Your task to perform on an android device: all mails in gmail Image 0: 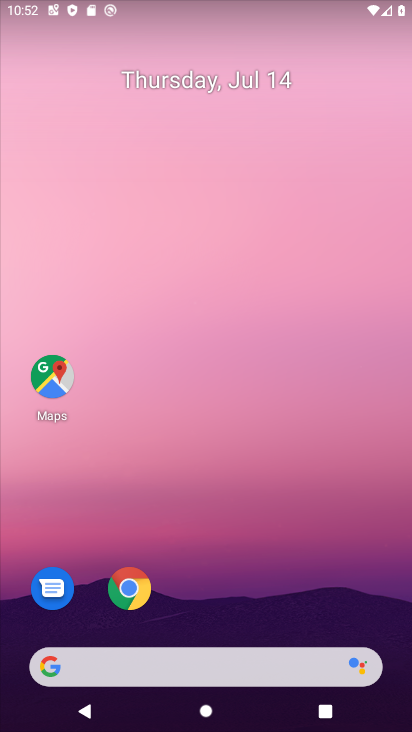
Step 0: drag from (214, 673) to (315, 130)
Your task to perform on an android device: all mails in gmail Image 1: 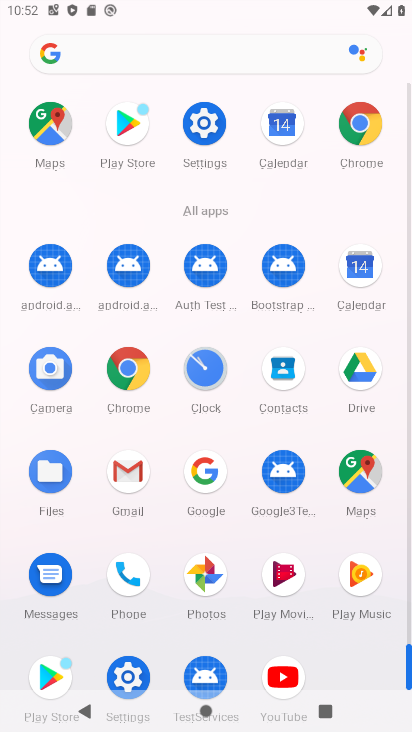
Step 1: click (125, 470)
Your task to perform on an android device: all mails in gmail Image 2: 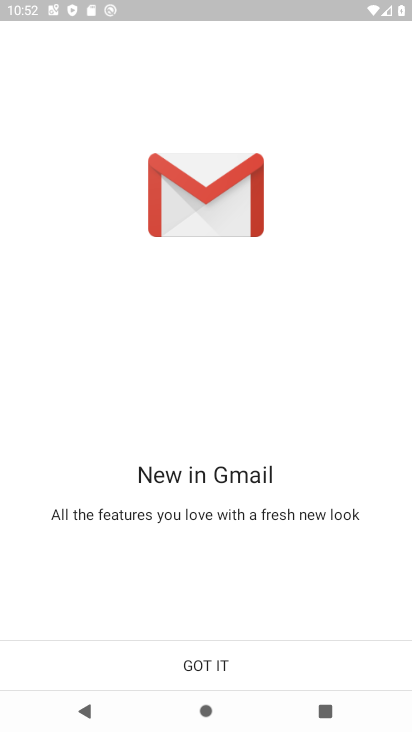
Step 2: click (198, 663)
Your task to perform on an android device: all mails in gmail Image 3: 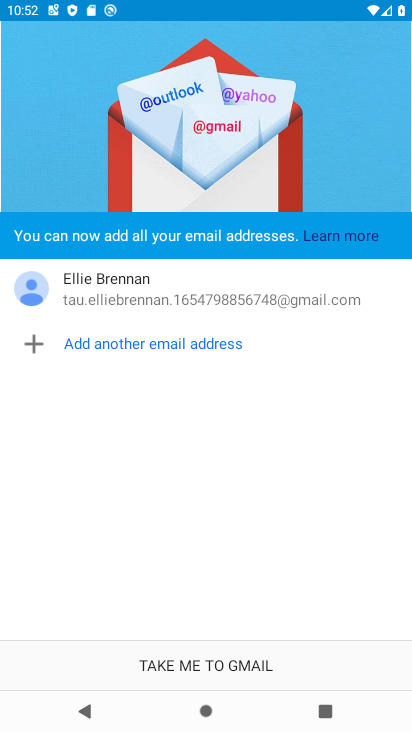
Step 3: click (198, 663)
Your task to perform on an android device: all mails in gmail Image 4: 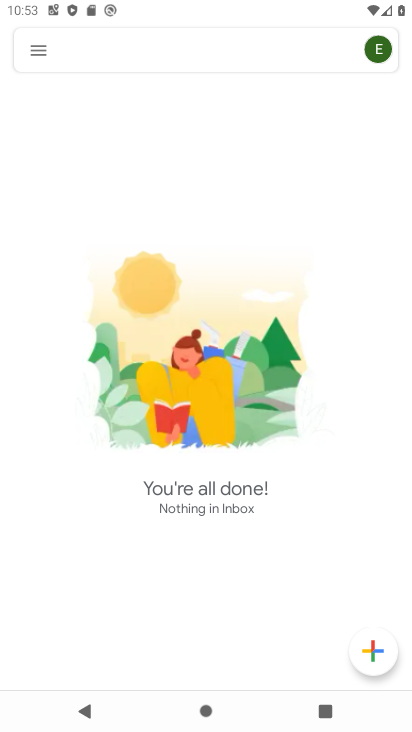
Step 4: click (37, 52)
Your task to perform on an android device: all mails in gmail Image 5: 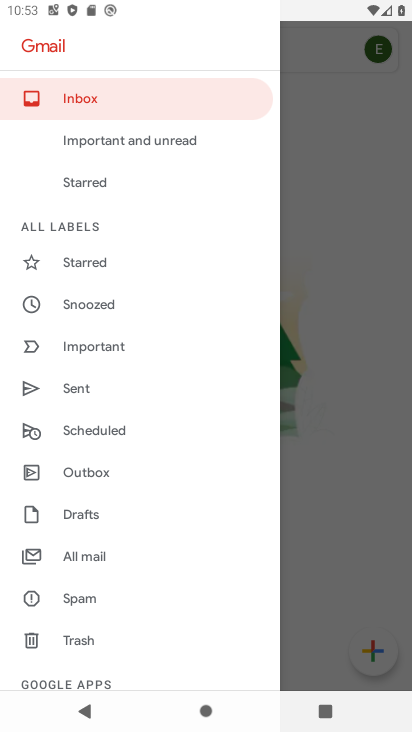
Step 5: click (86, 555)
Your task to perform on an android device: all mails in gmail Image 6: 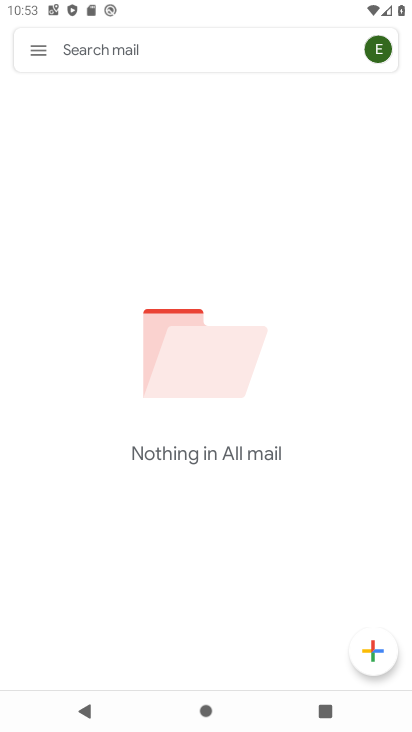
Step 6: click (33, 52)
Your task to perform on an android device: all mails in gmail Image 7: 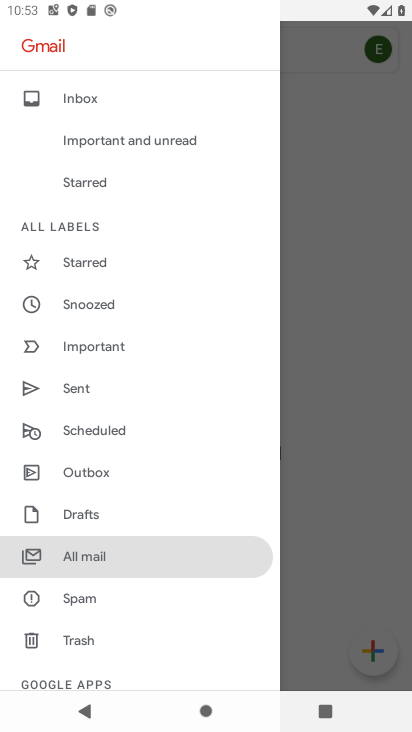
Step 7: click (73, 134)
Your task to perform on an android device: all mails in gmail Image 8: 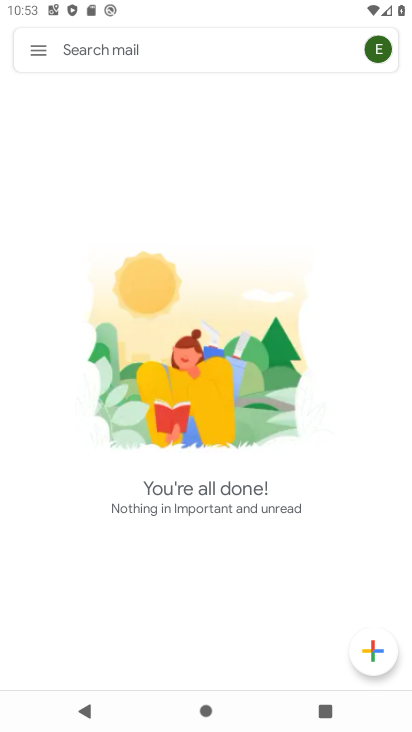
Step 8: click (39, 53)
Your task to perform on an android device: all mails in gmail Image 9: 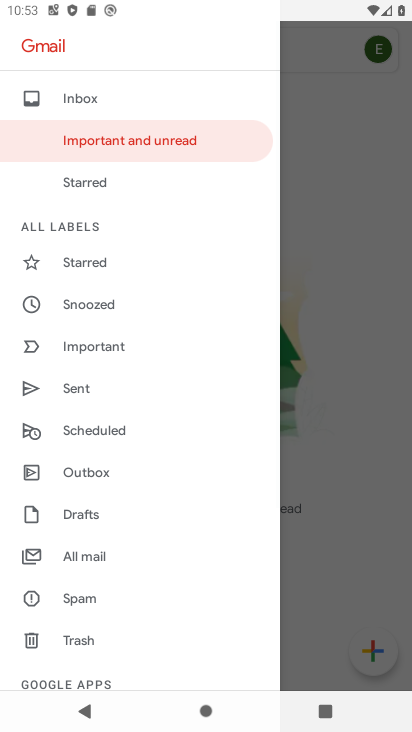
Step 9: click (81, 173)
Your task to perform on an android device: all mails in gmail Image 10: 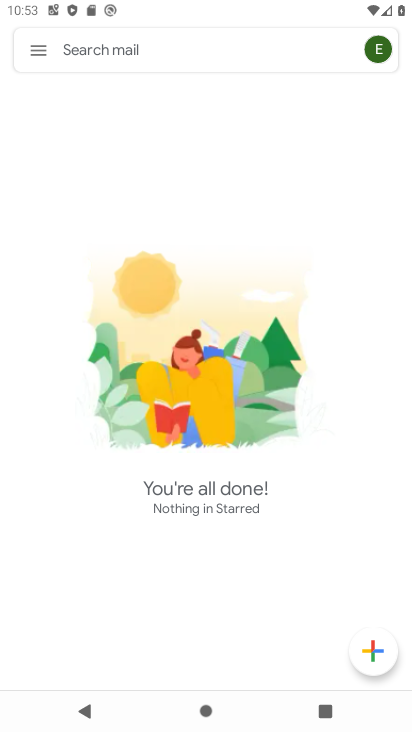
Step 10: click (39, 48)
Your task to perform on an android device: all mails in gmail Image 11: 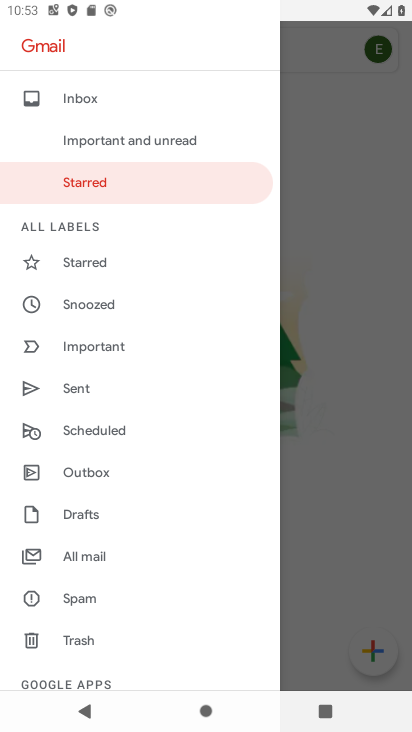
Step 11: click (91, 264)
Your task to perform on an android device: all mails in gmail Image 12: 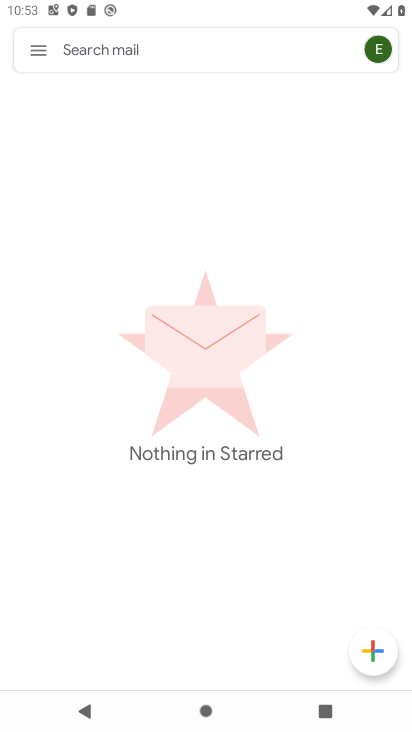
Step 12: click (35, 44)
Your task to perform on an android device: all mails in gmail Image 13: 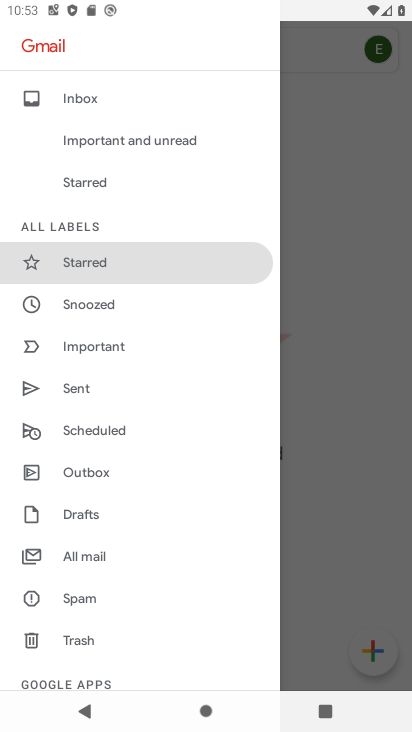
Step 13: click (103, 302)
Your task to perform on an android device: all mails in gmail Image 14: 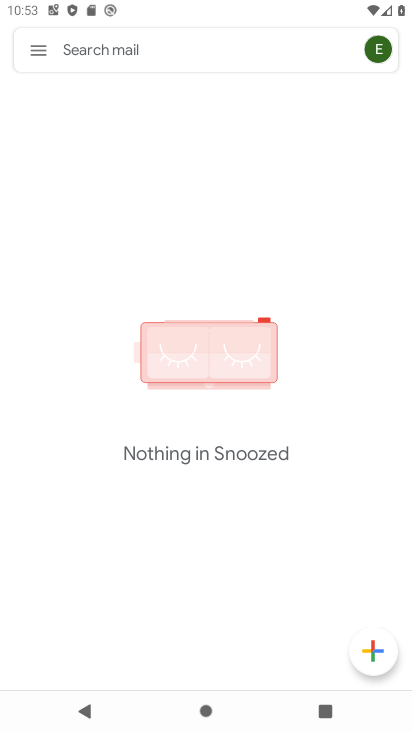
Step 14: click (42, 50)
Your task to perform on an android device: all mails in gmail Image 15: 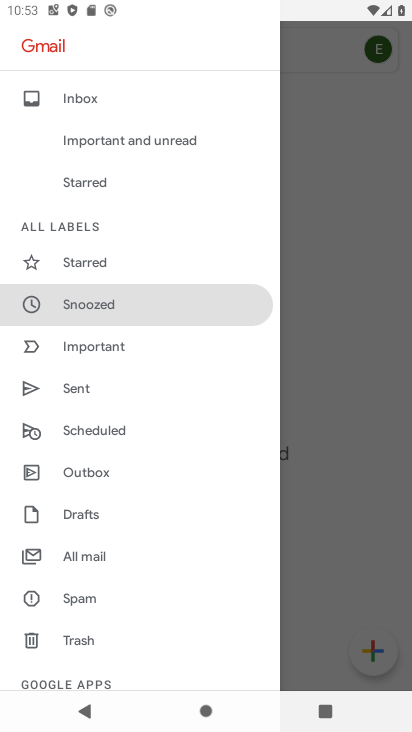
Step 15: click (117, 346)
Your task to perform on an android device: all mails in gmail Image 16: 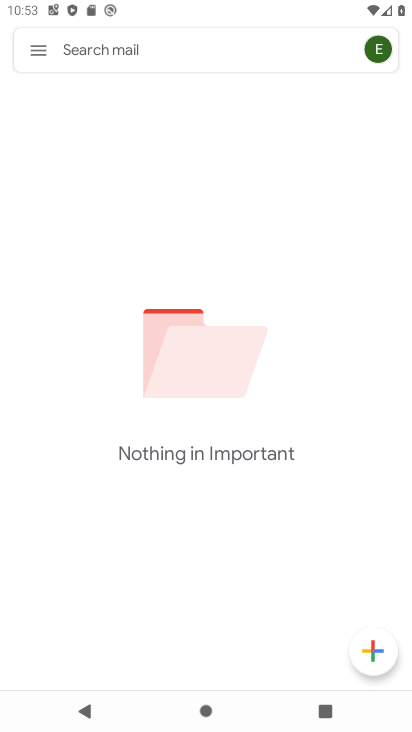
Step 16: click (34, 53)
Your task to perform on an android device: all mails in gmail Image 17: 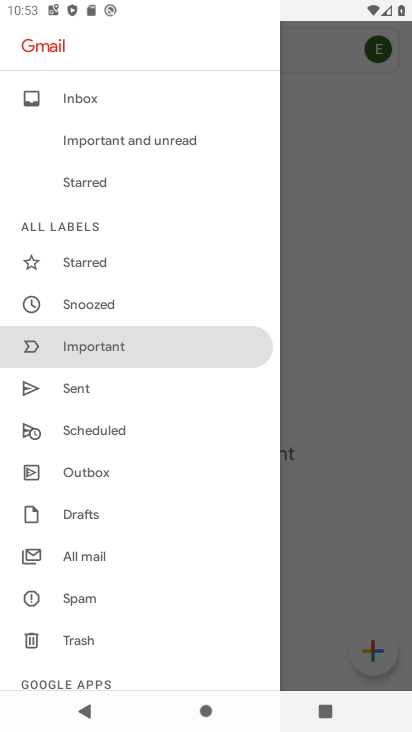
Step 17: click (96, 384)
Your task to perform on an android device: all mails in gmail Image 18: 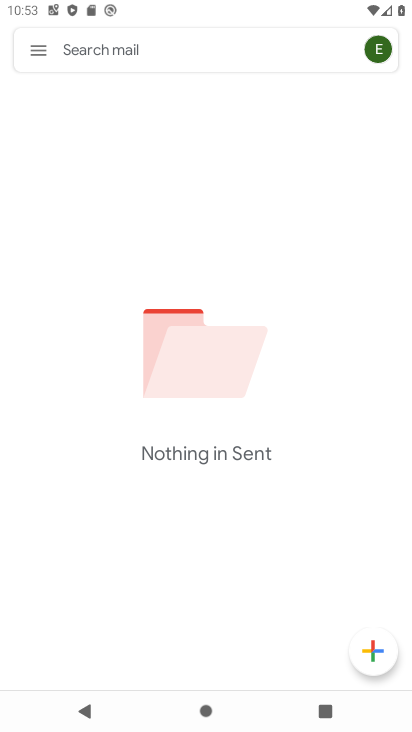
Step 18: click (32, 49)
Your task to perform on an android device: all mails in gmail Image 19: 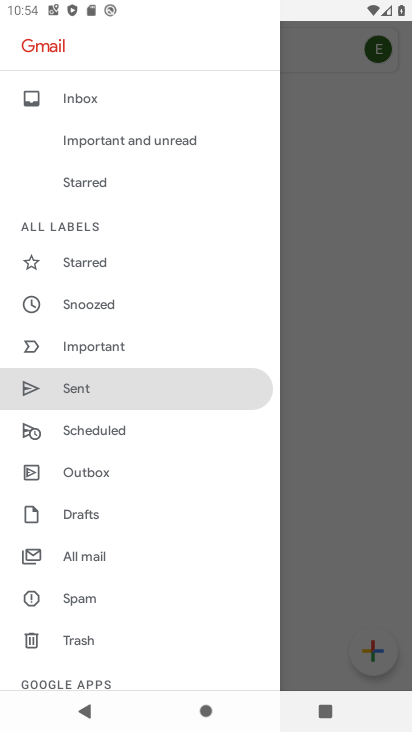
Step 19: click (99, 426)
Your task to perform on an android device: all mails in gmail Image 20: 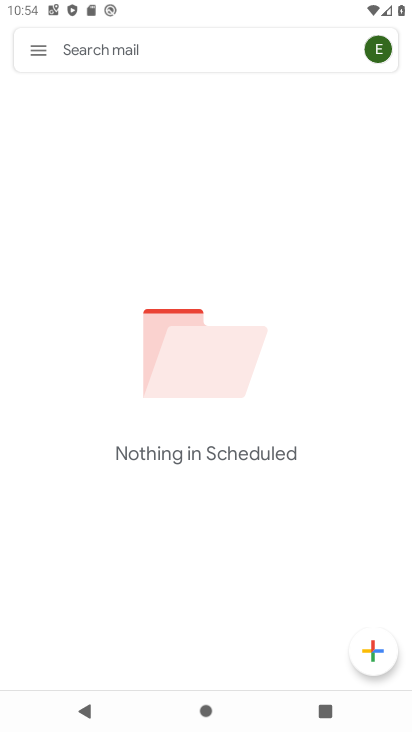
Step 20: task complete